Your task to perform on an android device: Open sound settings Image 0: 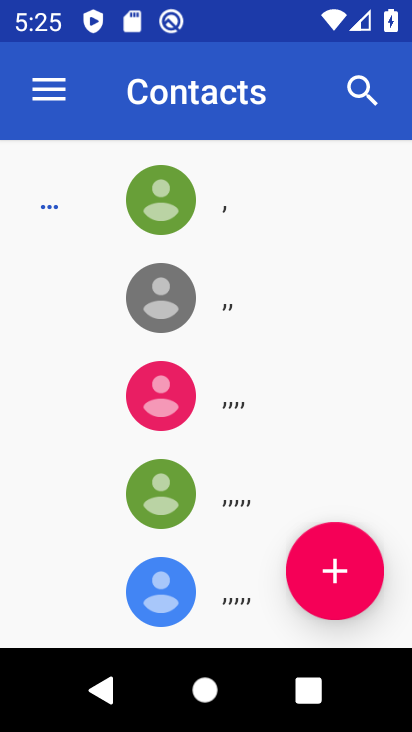
Step 0: press home button
Your task to perform on an android device: Open sound settings Image 1: 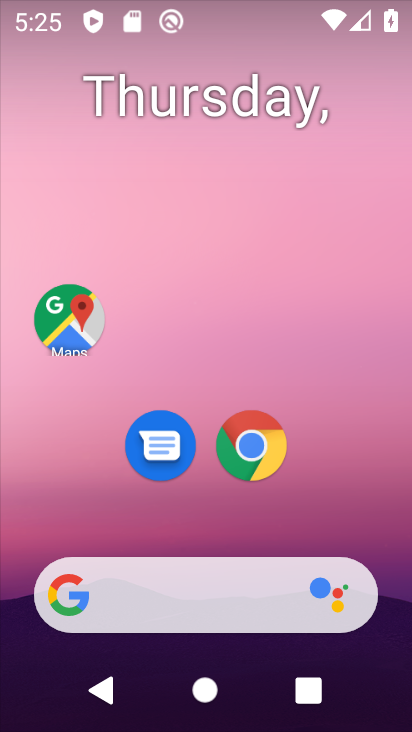
Step 1: drag from (306, 505) to (321, 82)
Your task to perform on an android device: Open sound settings Image 2: 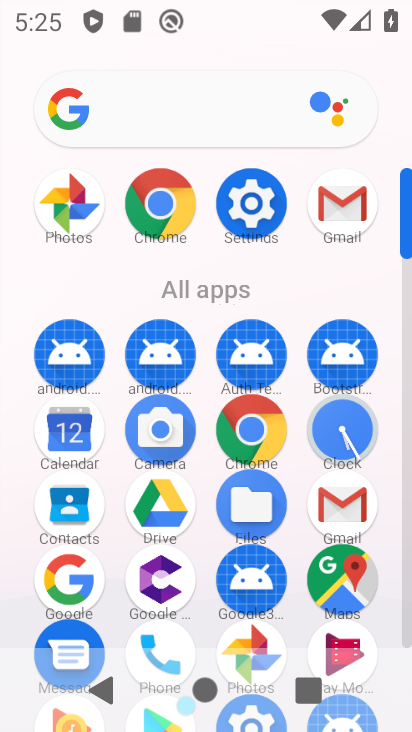
Step 2: click (259, 202)
Your task to perform on an android device: Open sound settings Image 3: 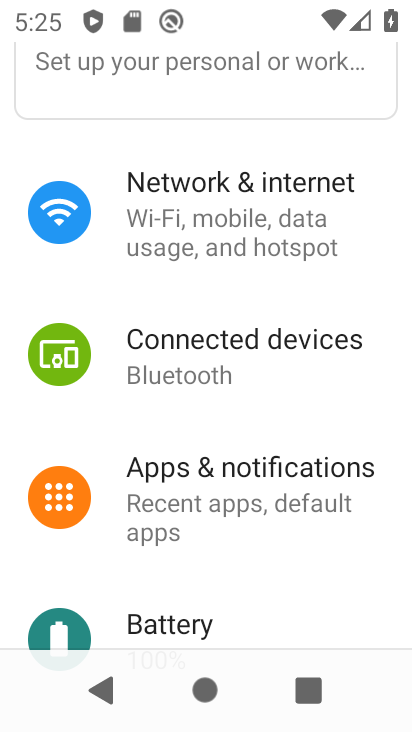
Step 3: drag from (280, 584) to (271, 180)
Your task to perform on an android device: Open sound settings Image 4: 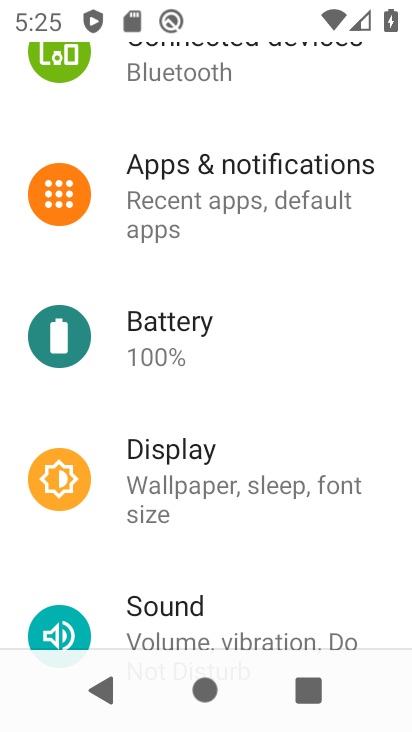
Step 4: click (175, 609)
Your task to perform on an android device: Open sound settings Image 5: 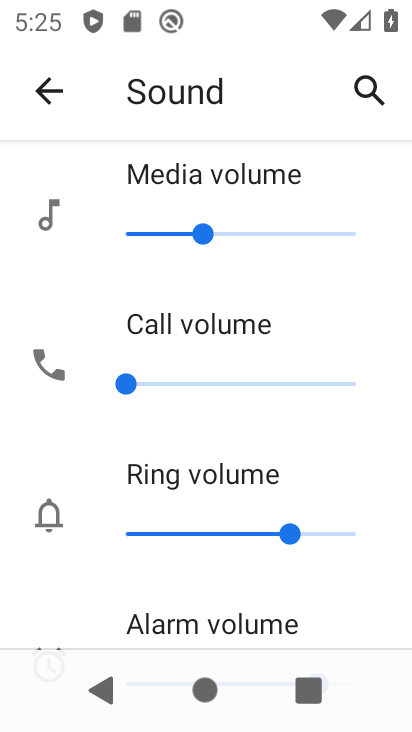
Step 5: task complete